Your task to perform on an android device: toggle data saver in the chrome app Image 0: 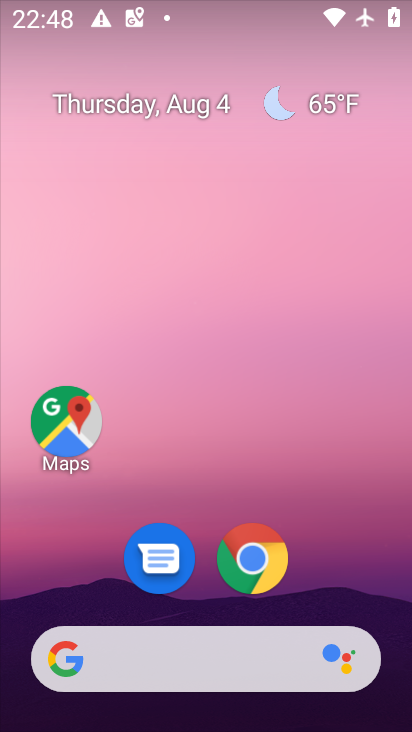
Step 0: drag from (368, 532) to (302, 120)
Your task to perform on an android device: toggle data saver in the chrome app Image 1: 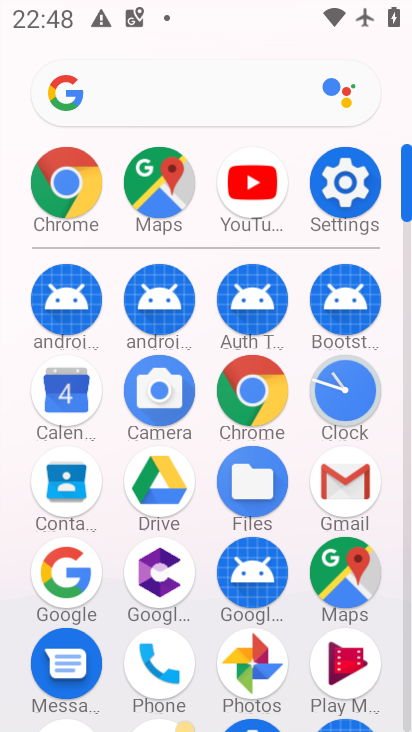
Step 1: click (257, 395)
Your task to perform on an android device: toggle data saver in the chrome app Image 2: 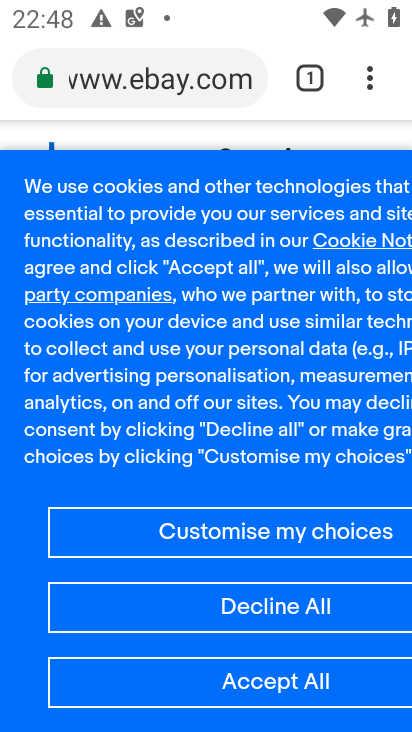
Step 2: drag from (377, 76) to (199, 610)
Your task to perform on an android device: toggle data saver in the chrome app Image 3: 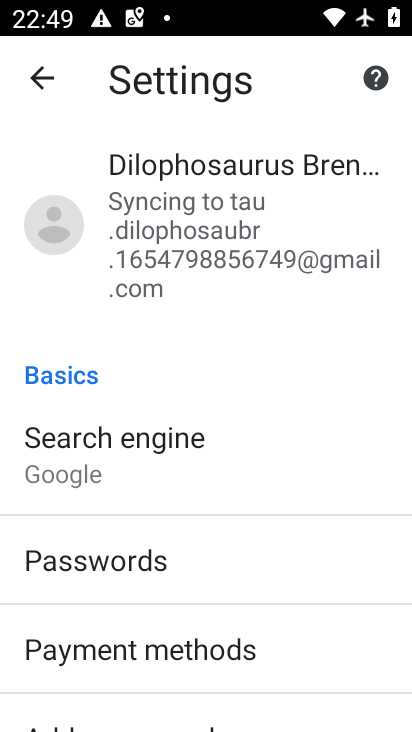
Step 3: drag from (229, 611) to (258, 88)
Your task to perform on an android device: toggle data saver in the chrome app Image 4: 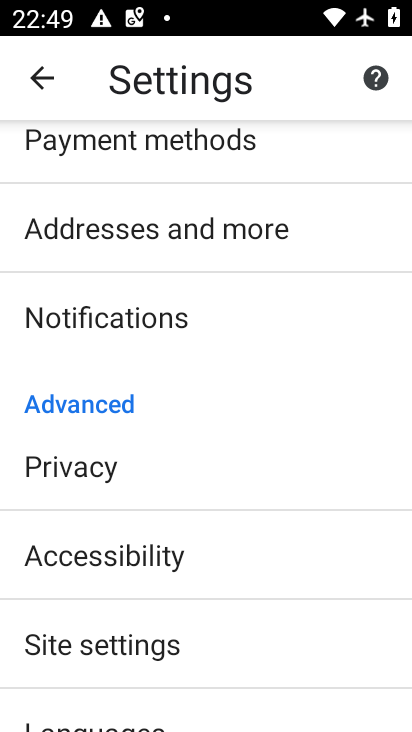
Step 4: drag from (285, 642) to (316, 256)
Your task to perform on an android device: toggle data saver in the chrome app Image 5: 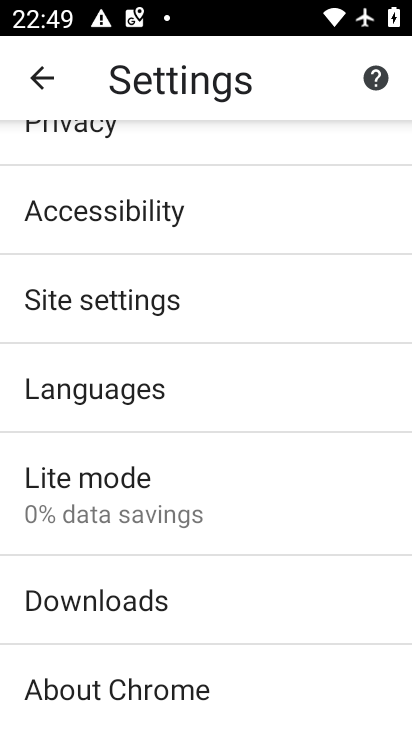
Step 5: click (168, 517)
Your task to perform on an android device: toggle data saver in the chrome app Image 6: 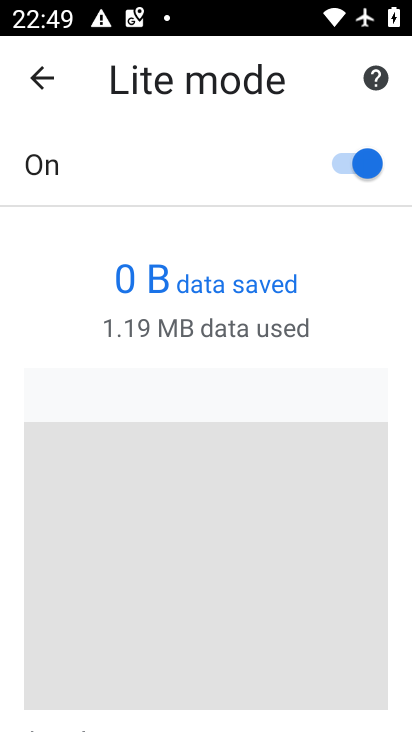
Step 6: click (367, 172)
Your task to perform on an android device: toggle data saver in the chrome app Image 7: 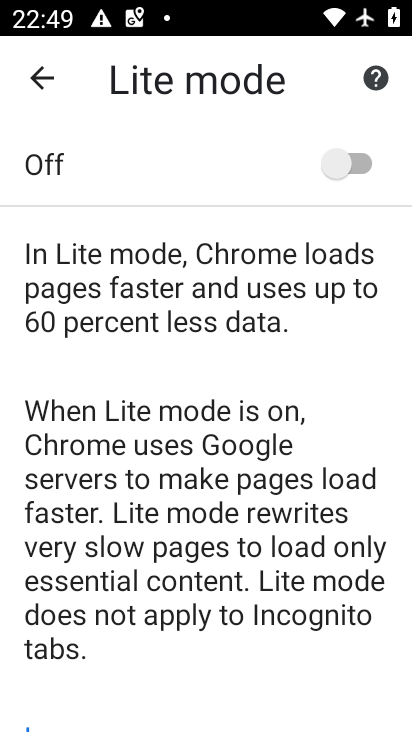
Step 7: task complete